Your task to perform on an android device: change the clock display to digital Image 0: 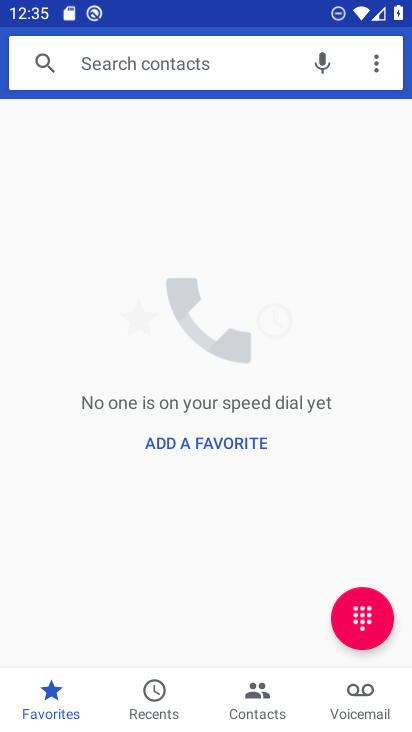
Step 0: press home button
Your task to perform on an android device: change the clock display to digital Image 1: 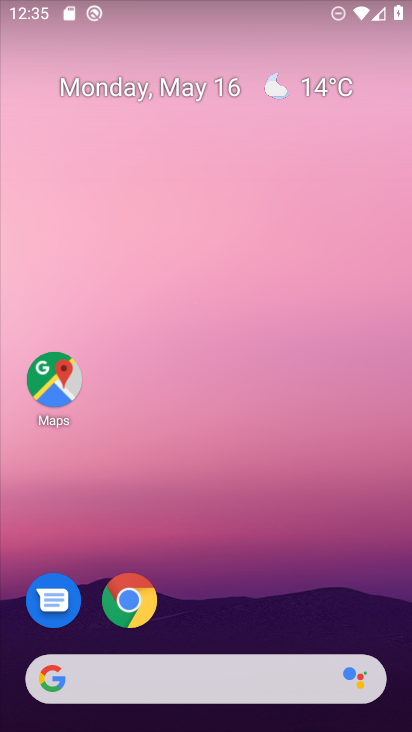
Step 1: drag from (214, 639) to (243, 33)
Your task to perform on an android device: change the clock display to digital Image 2: 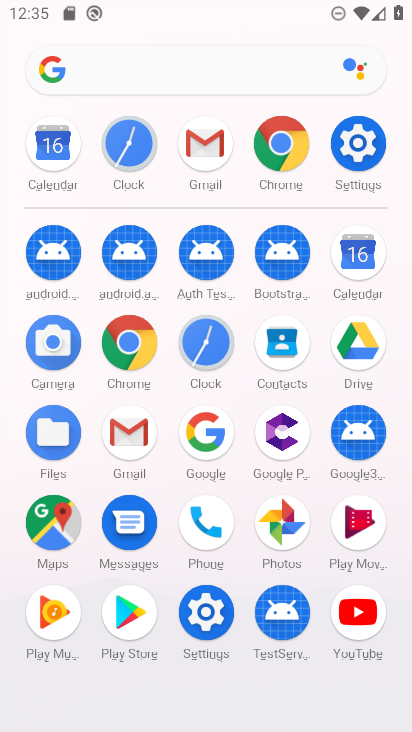
Step 2: click (205, 334)
Your task to perform on an android device: change the clock display to digital Image 3: 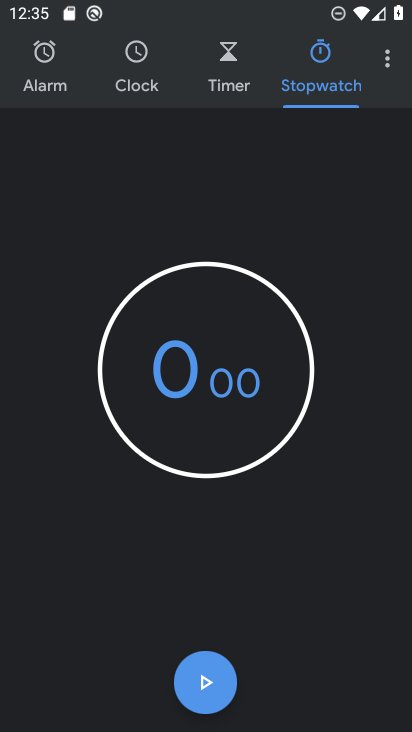
Step 3: click (391, 54)
Your task to perform on an android device: change the clock display to digital Image 4: 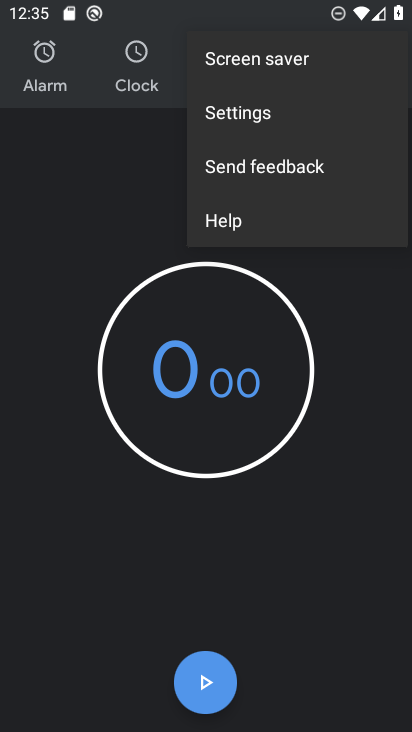
Step 4: click (272, 112)
Your task to perform on an android device: change the clock display to digital Image 5: 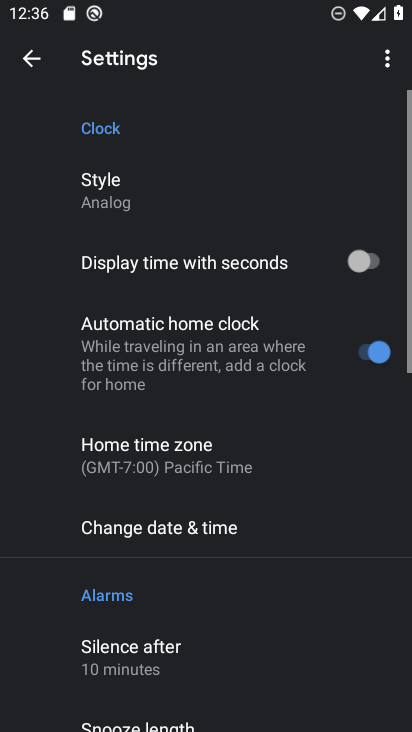
Step 5: click (148, 190)
Your task to perform on an android device: change the clock display to digital Image 6: 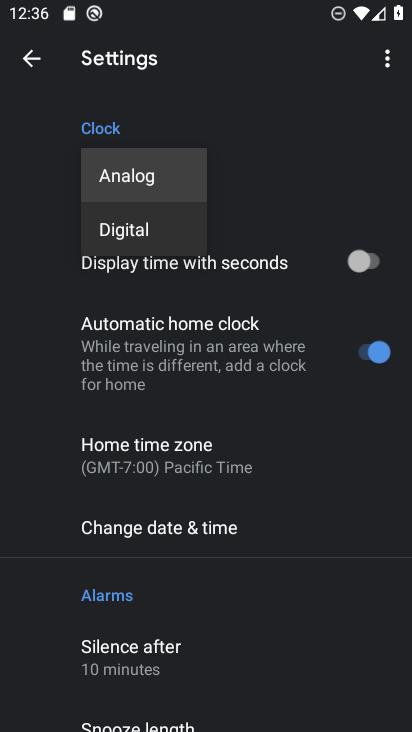
Step 6: click (167, 230)
Your task to perform on an android device: change the clock display to digital Image 7: 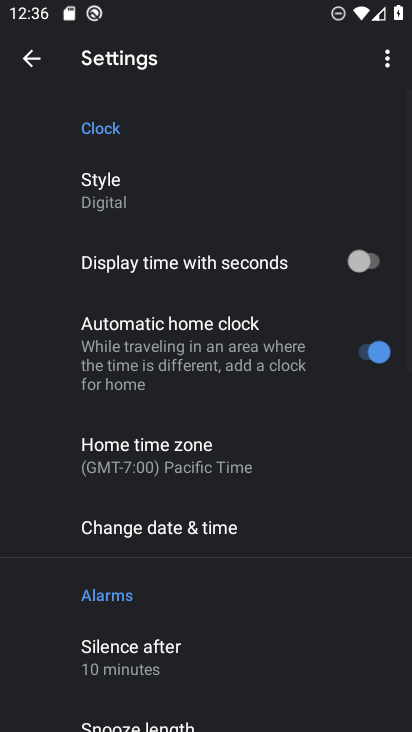
Step 7: task complete